Your task to perform on an android device: read, delete, or share a saved page in the chrome app Image 0: 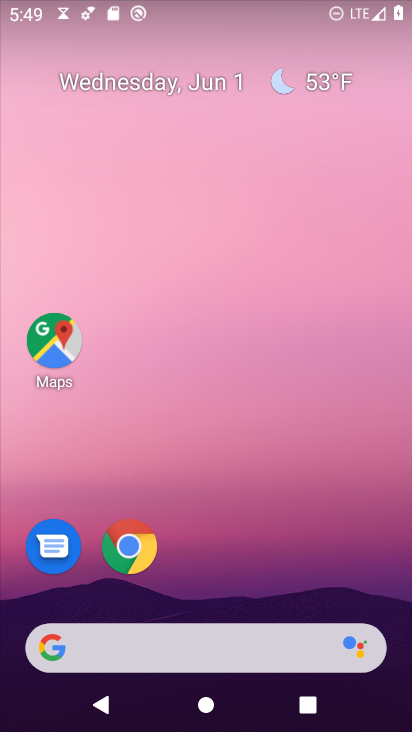
Step 0: drag from (272, 451) to (267, 1)
Your task to perform on an android device: read, delete, or share a saved page in the chrome app Image 1: 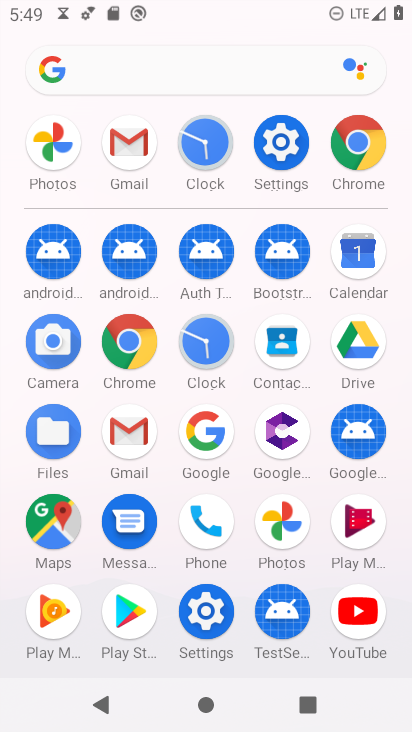
Step 1: drag from (17, 591) to (22, 257)
Your task to perform on an android device: read, delete, or share a saved page in the chrome app Image 2: 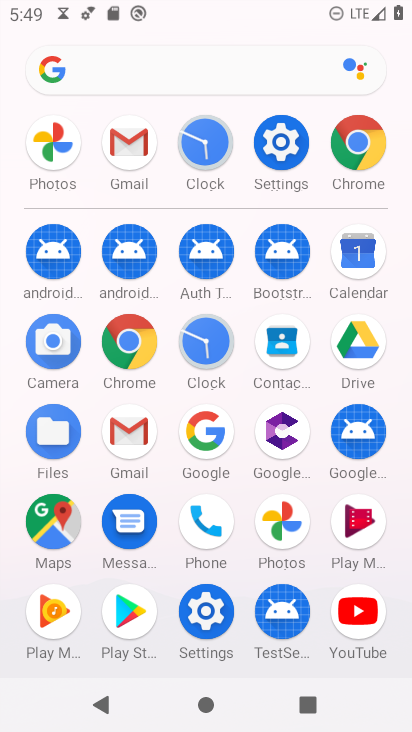
Step 2: click (129, 340)
Your task to perform on an android device: read, delete, or share a saved page in the chrome app Image 3: 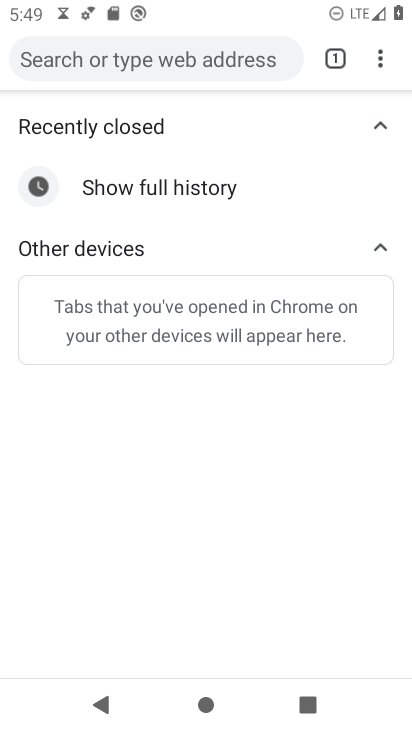
Step 3: task complete